Your task to perform on an android device: make emails show in primary in the gmail app Image 0: 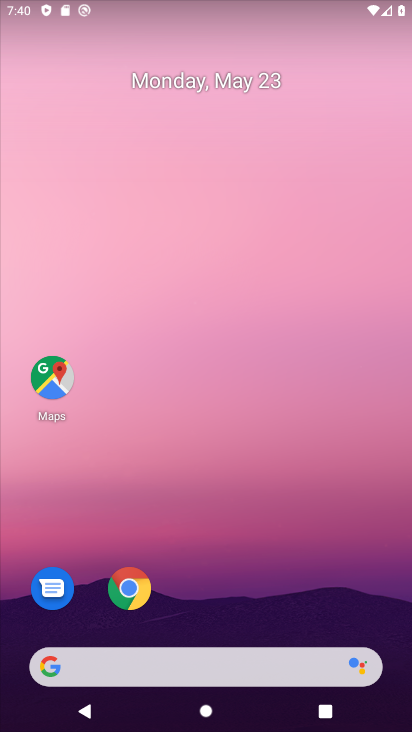
Step 0: drag from (400, 668) to (332, 189)
Your task to perform on an android device: make emails show in primary in the gmail app Image 1: 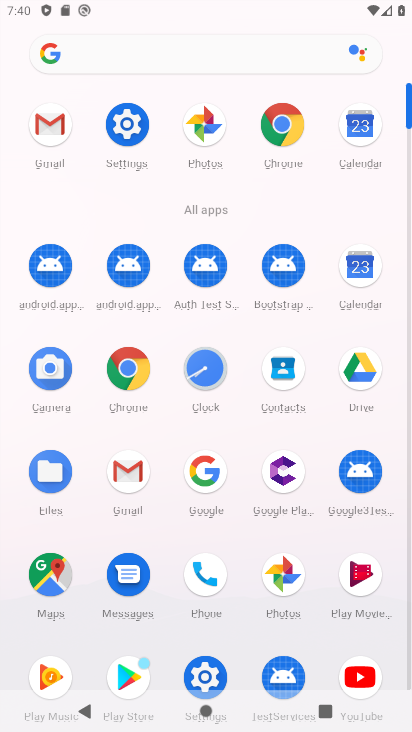
Step 1: click (124, 475)
Your task to perform on an android device: make emails show in primary in the gmail app Image 2: 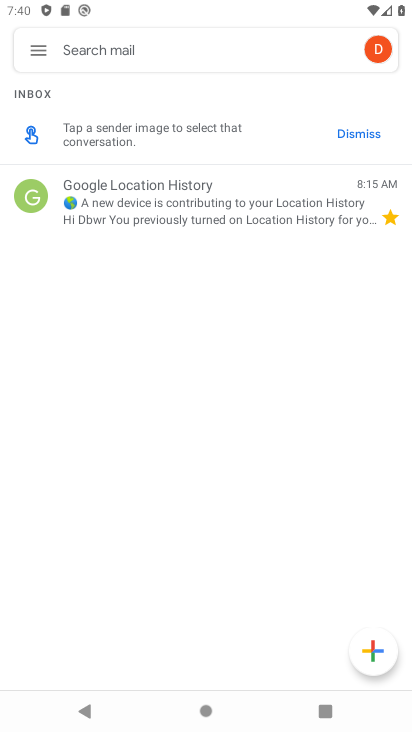
Step 2: click (40, 55)
Your task to perform on an android device: make emails show in primary in the gmail app Image 3: 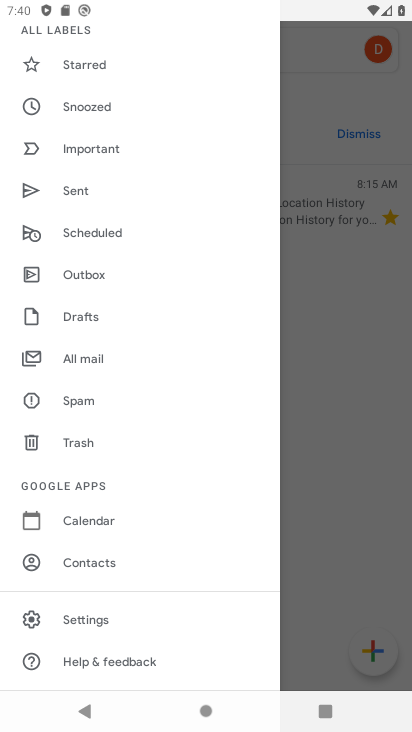
Step 3: click (91, 612)
Your task to perform on an android device: make emails show in primary in the gmail app Image 4: 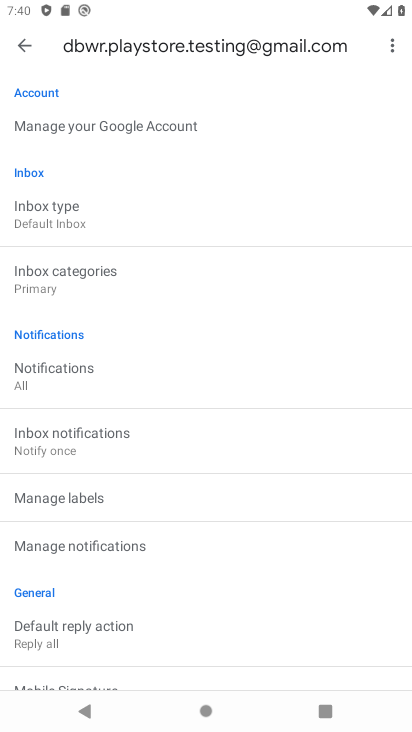
Step 4: click (54, 275)
Your task to perform on an android device: make emails show in primary in the gmail app Image 5: 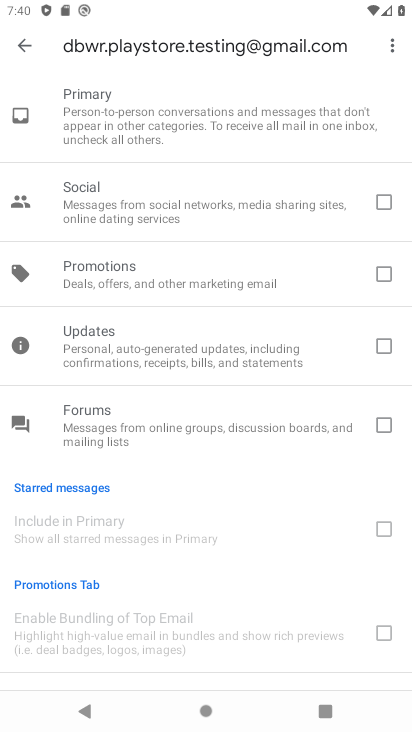
Step 5: task complete